Your task to perform on an android device: toggle improve location accuracy Image 0: 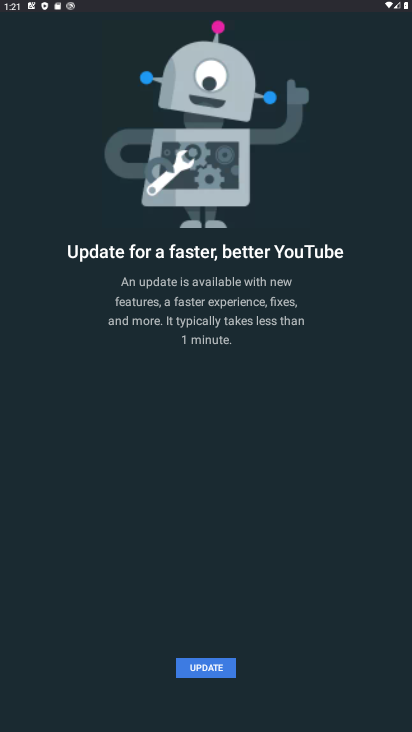
Step 0: press home button
Your task to perform on an android device: toggle improve location accuracy Image 1: 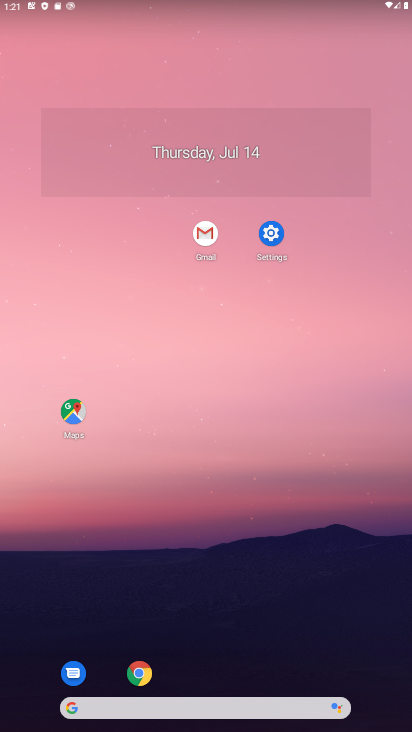
Step 1: click (266, 239)
Your task to perform on an android device: toggle improve location accuracy Image 2: 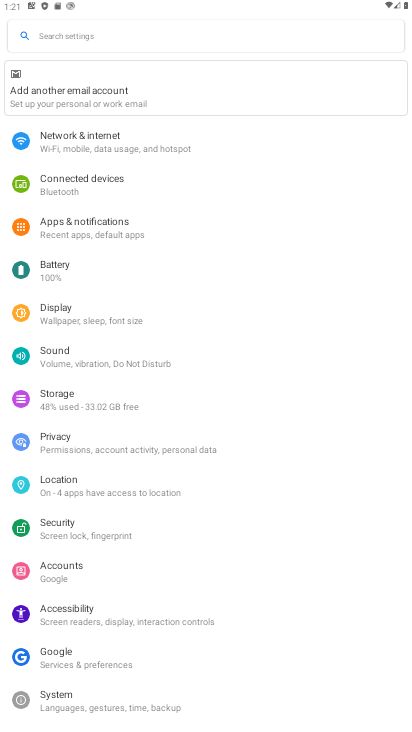
Step 2: click (134, 490)
Your task to perform on an android device: toggle improve location accuracy Image 3: 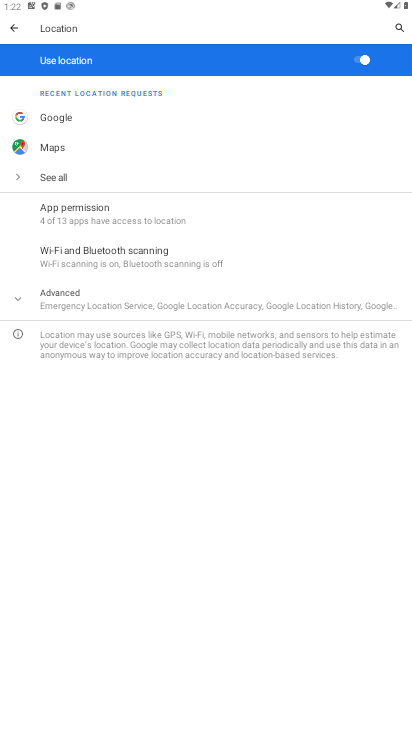
Step 3: click (96, 287)
Your task to perform on an android device: toggle improve location accuracy Image 4: 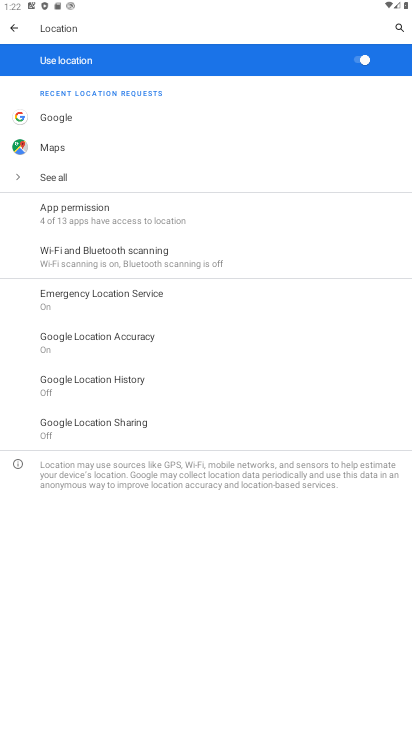
Step 4: click (204, 331)
Your task to perform on an android device: toggle improve location accuracy Image 5: 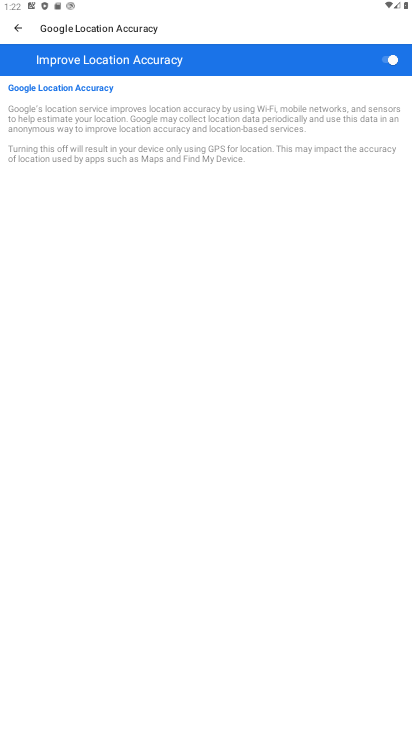
Step 5: click (390, 69)
Your task to perform on an android device: toggle improve location accuracy Image 6: 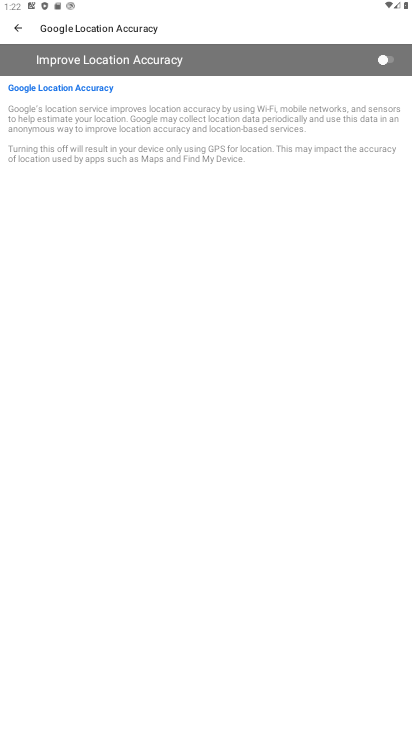
Step 6: task complete